Your task to perform on an android device: toggle translation in the chrome app Image 0: 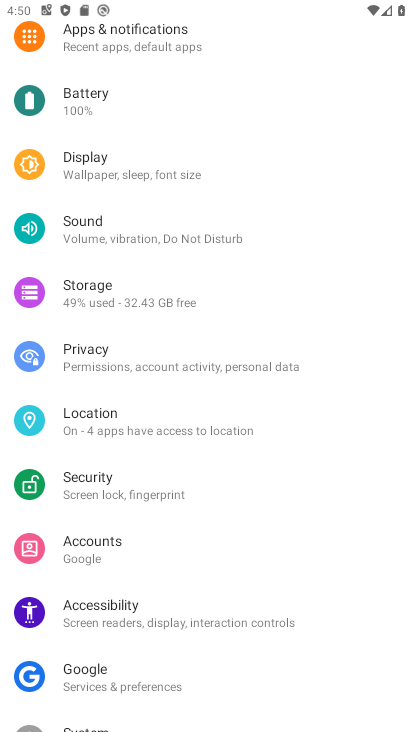
Step 0: press home button
Your task to perform on an android device: toggle translation in the chrome app Image 1: 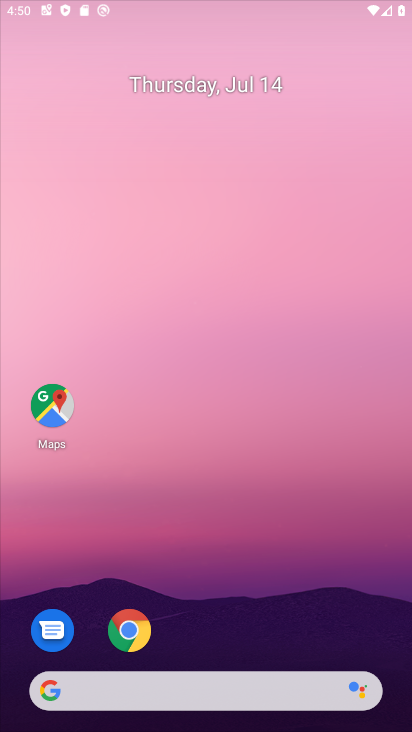
Step 1: drag from (249, 618) to (294, 52)
Your task to perform on an android device: toggle translation in the chrome app Image 2: 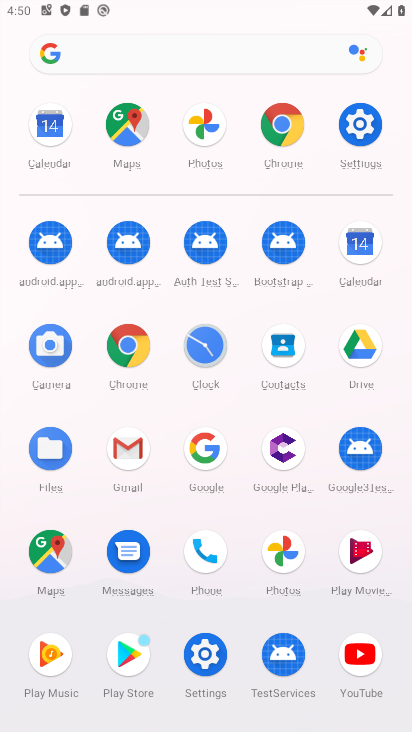
Step 2: click (148, 353)
Your task to perform on an android device: toggle translation in the chrome app Image 3: 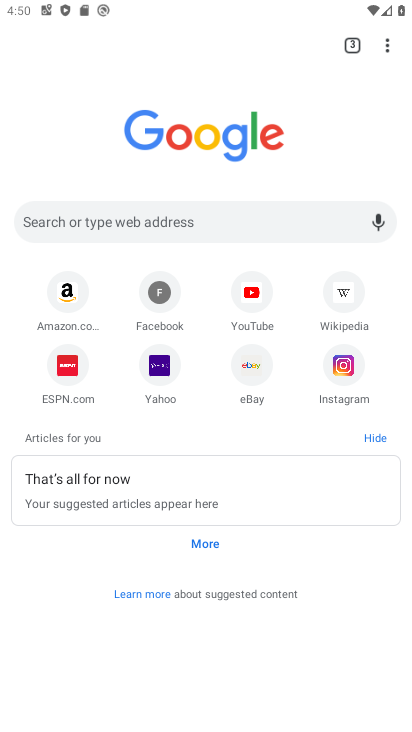
Step 3: drag from (388, 45) to (265, 379)
Your task to perform on an android device: toggle translation in the chrome app Image 4: 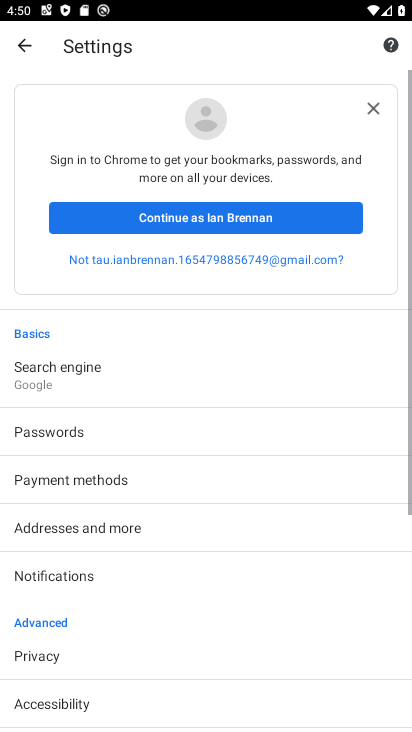
Step 4: drag from (89, 610) to (143, 325)
Your task to perform on an android device: toggle translation in the chrome app Image 5: 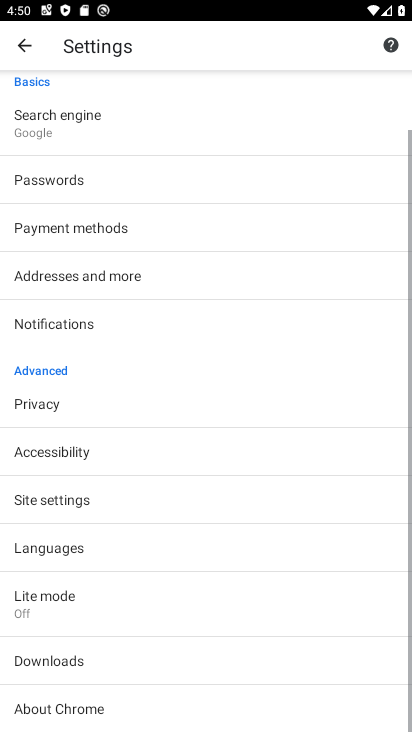
Step 5: click (64, 554)
Your task to perform on an android device: toggle translation in the chrome app Image 6: 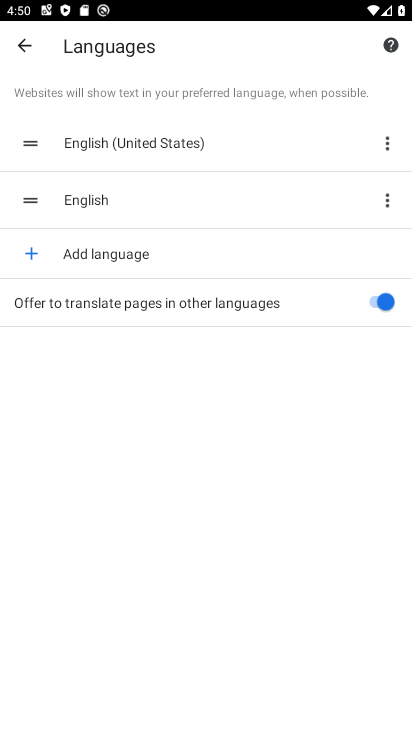
Step 6: click (383, 308)
Your task to perform on an android device: toggle translation in the chrome app Image 7: 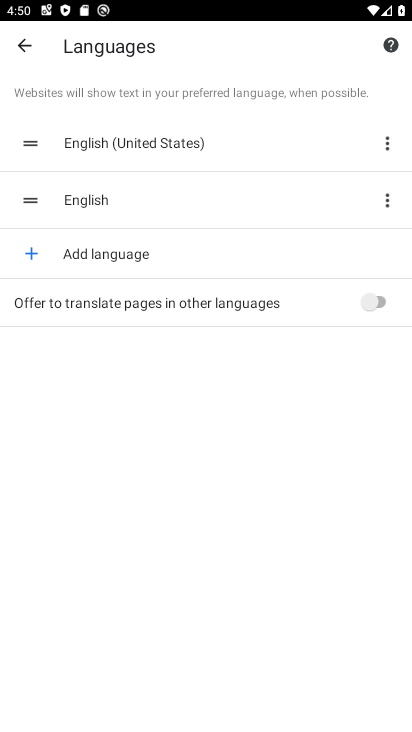
Step 7: task complete